Your task to perform on an android device: Go to Google maps Image 0: 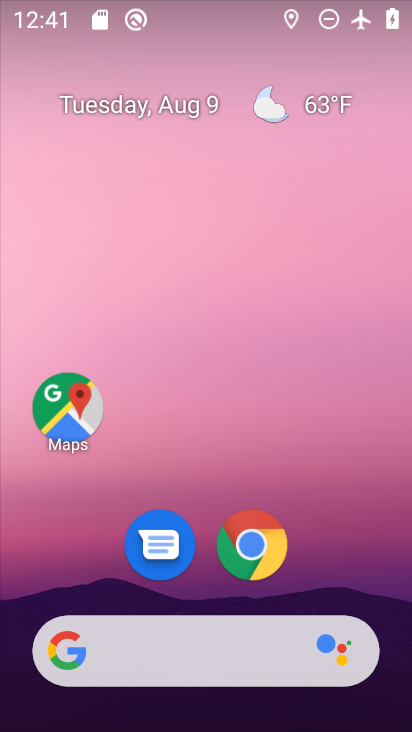
Step 0: click (68, 410)
Your task to perform on an android device: Go to Google maps Image 1: 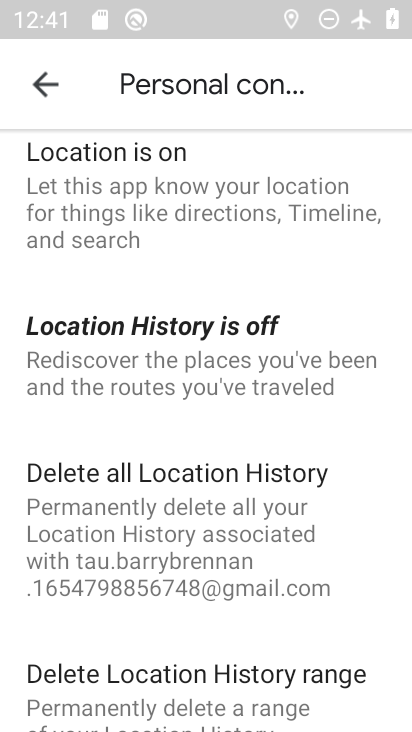
Step 1: task complete